Your task to perform on an android device: star an email in the gmail app Image 0: 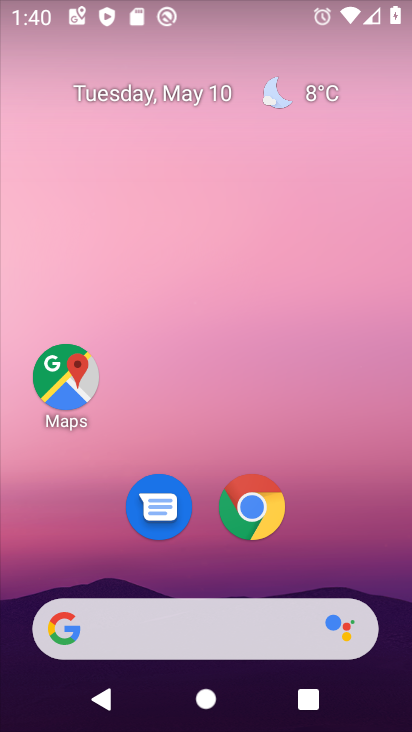
Step 0: drag from (222, 717) to (221, 174)
Your task to perform on an android device: star an email in the gmail app Image 1: 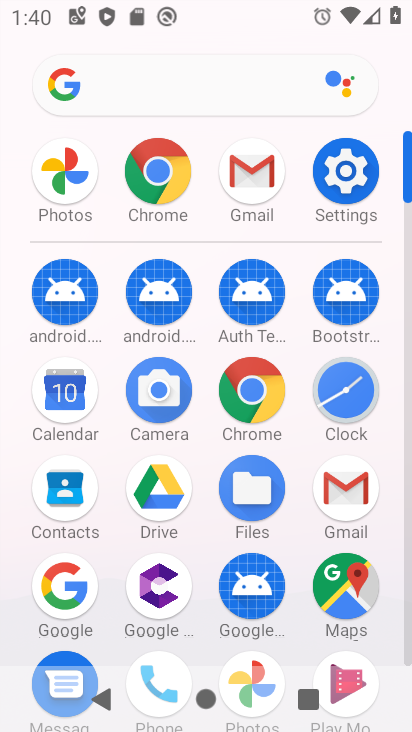
Step 1: click (342, 497)
Your task to perform on an android device: star an email in the gmail app Image 2: 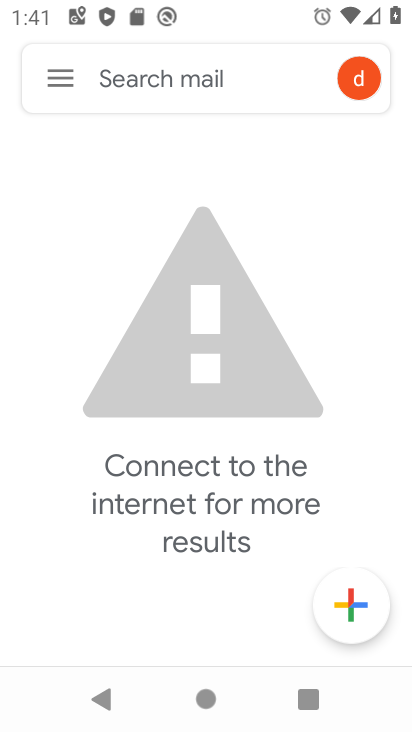
Step 2: click (54, 84)
Your task to perform on an android device: star an email in the gmail app Image 3: 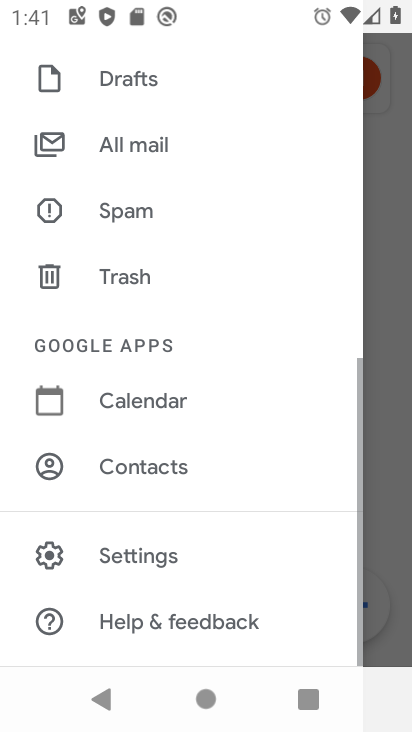
Step 3: drag from (191, 138) to (202, 556)
Your task to perform on an android device: star an email in the gmail app Image 4: 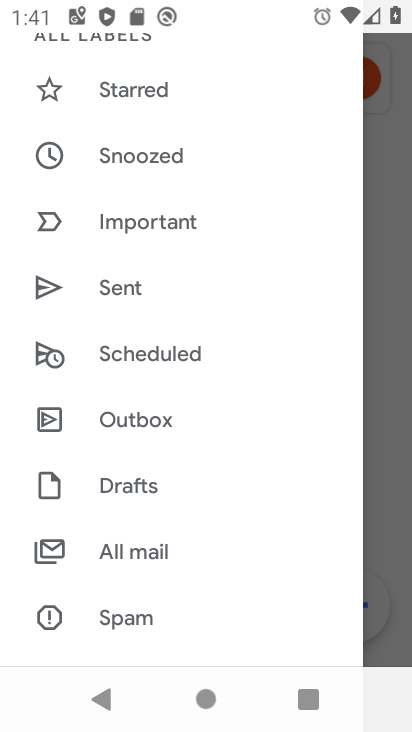
Step 4: drag from (232, 101) to (238, 530)
Your task to perform on an android device: star an email in the gmail app Image 5: 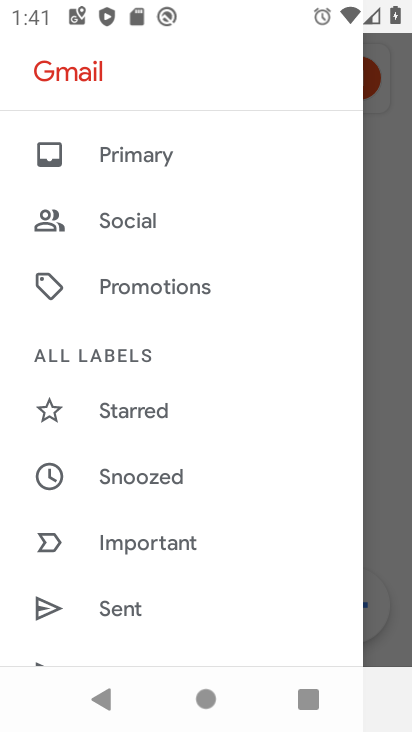
Step 5: click (133, 150)
Your task to perform on an android device: star an email in the gmail app Image 6: 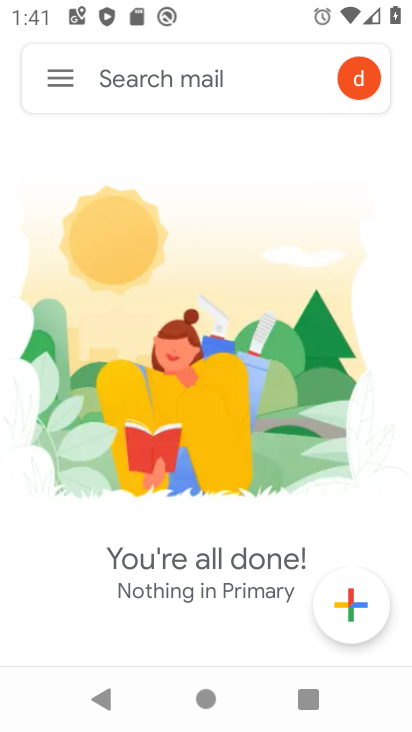
Step 6: task complete